Your task to perform on an android device: Open network settings Image 0: 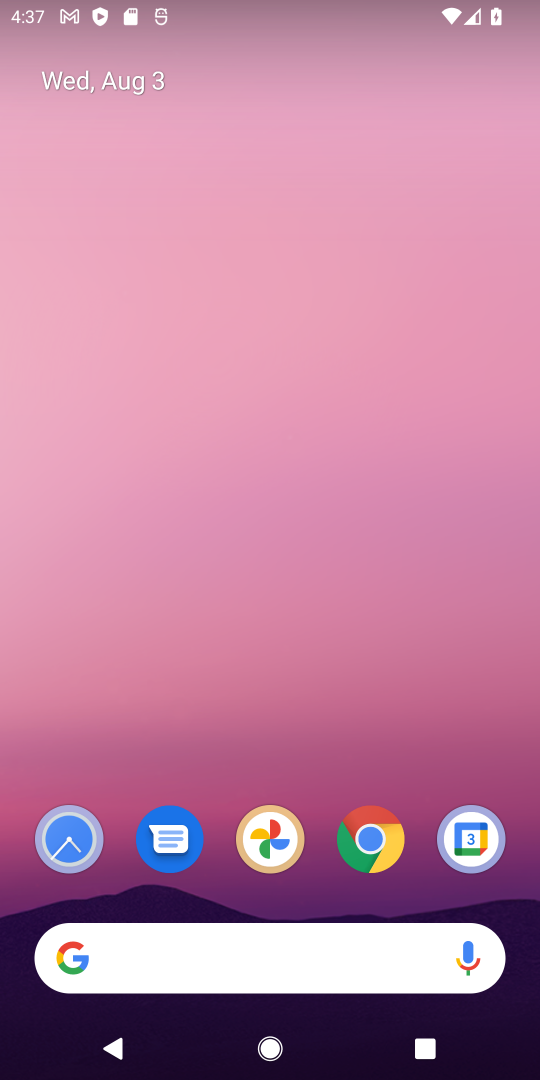
Step 0: drag from (172, 446) to (213, 75)
Your task to perform on an android device: Open network settings Image 1: 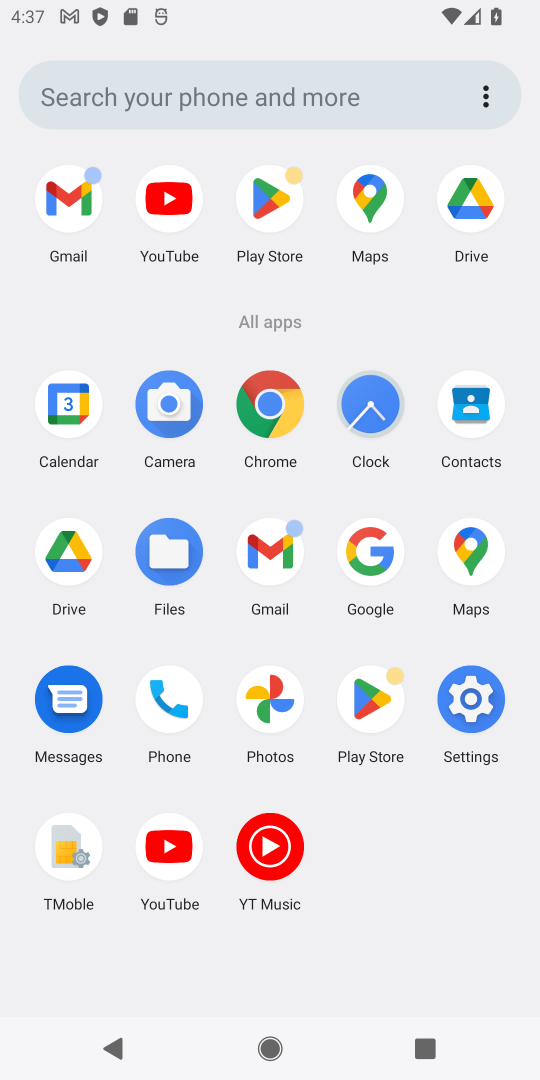
Step 1: click (495, 707)
Your task to perform on an android device: Open network settings Image 2: 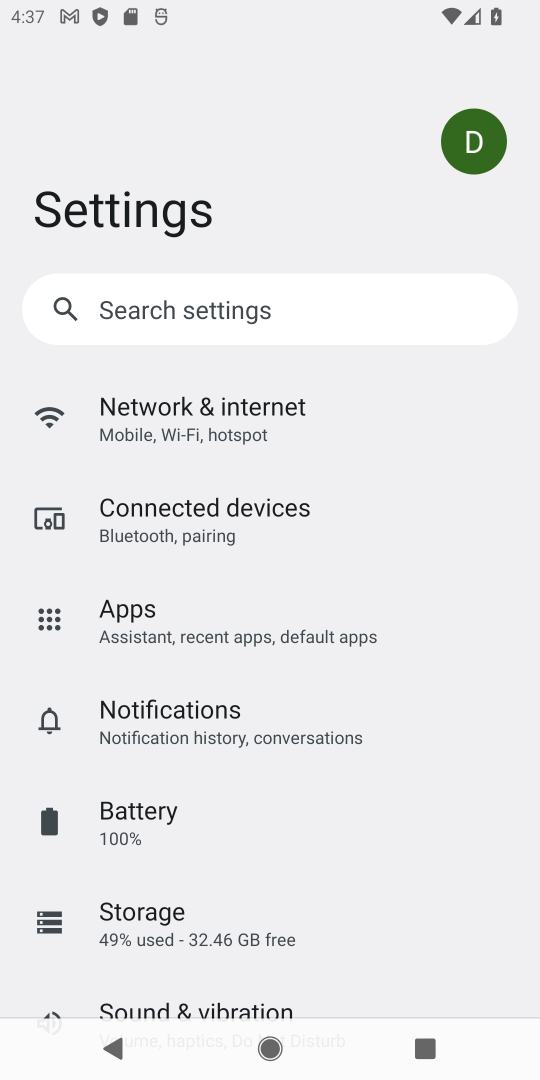
Step 2: click (210, 414)
Your task to perform on an android device: Open network settings Image 3: 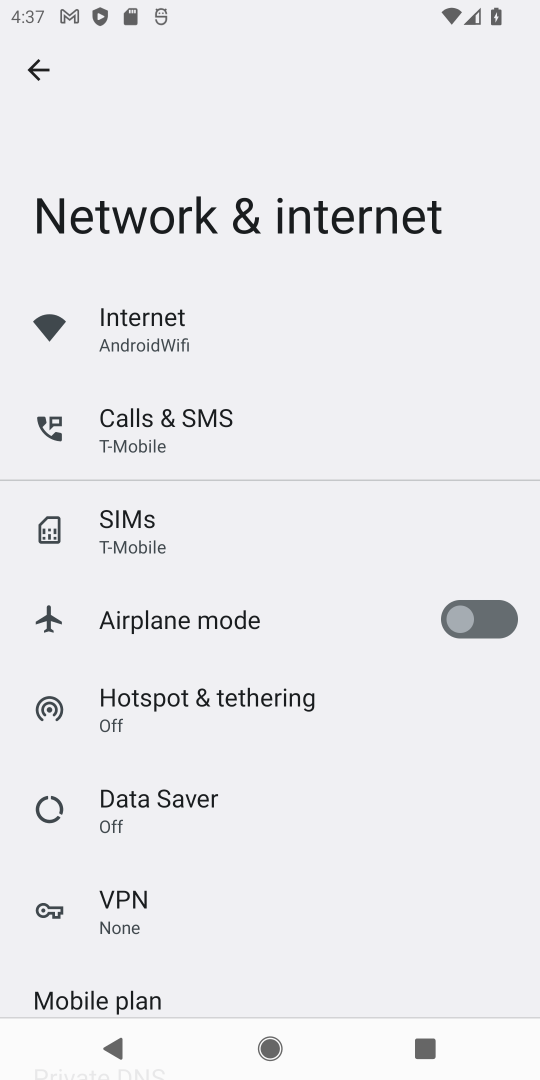
Step 3: task complete